Your task to perform on an android device: install app "Spotify: Music and Podcasts" Image 0: 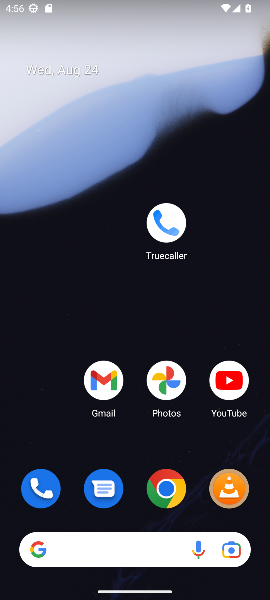
Step 0: drag from (123, 327) to (104, 122)
Your task to perform on an android device: install app "Spotify: Music and Podcasts" Image 1: 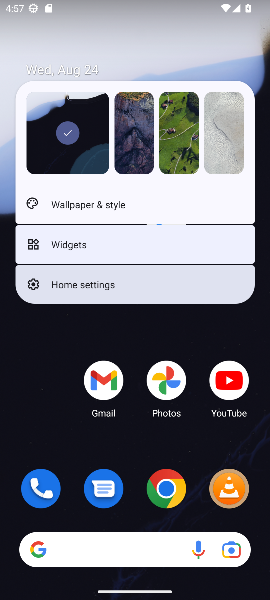
Step 1: click (54, 430)
Your task to perform on an android device: install app "Spotify: Music and Podcasts" Image 2: 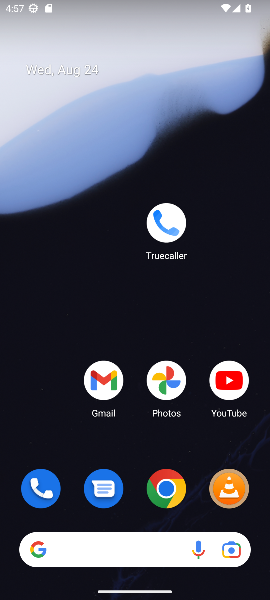
Step 2: drag from (136, 521) to (137, 87)
Your task to perform on an android device: install app "Spotify: Music and Podcasts" Image 3: 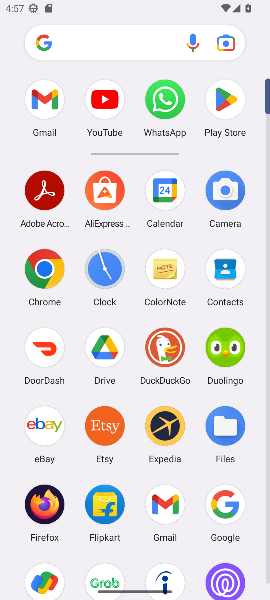
Step 3: click (231, 100)
Your task to perform on an android device: install app "Spotify: Music and Podcasts" Image 4: 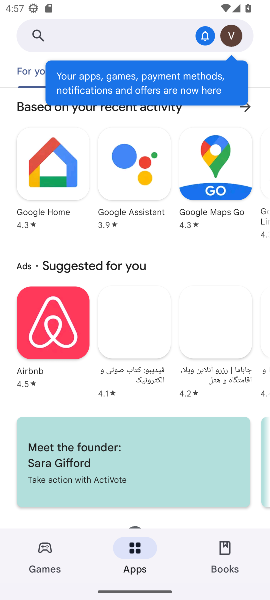
Step 4: click (171, 40)
Your task to perform on an android device: install app "Spotify: Music and Podcasts" Image 5: 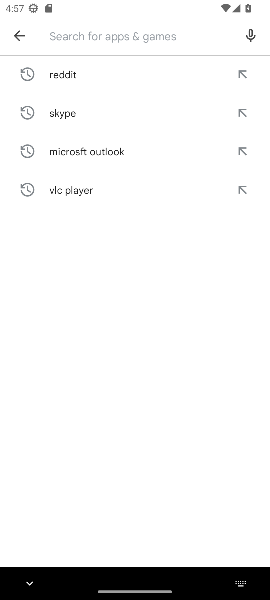
Step 5: click (129, 40)
Your task to perform on an android device: install app "Spotify: Music and Podcasts" Image 6: 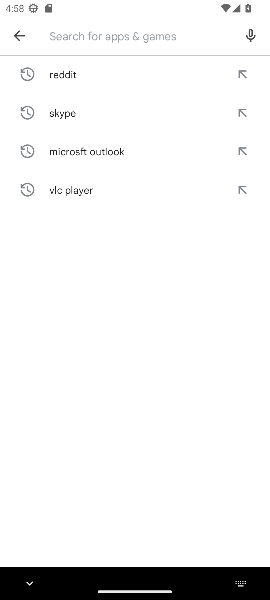
Step 6: type "spotify"
Your task to perform on an android device: install app "Spotify: Music and Podcasts" Image 7: 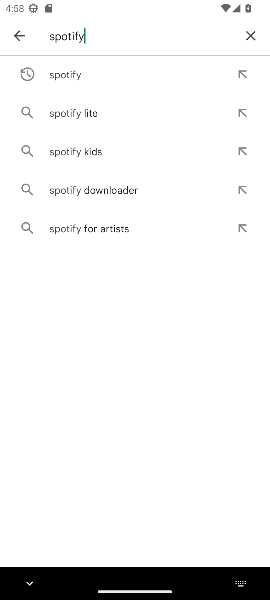
Step 7: click (64, 75)
Your task to perform on an android device: install app "Spotify: Music and Podcasts" Image 8: 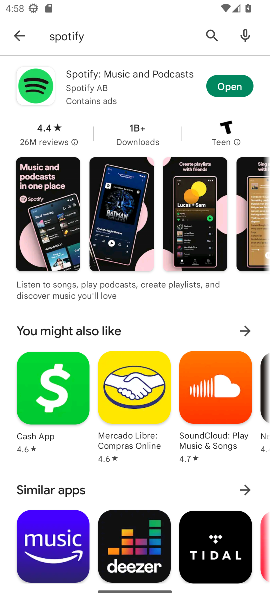
Step 8: click (229, 92)
Your task to perform on an android device: install app "Spotify: Music and Podcasts" Image 9: 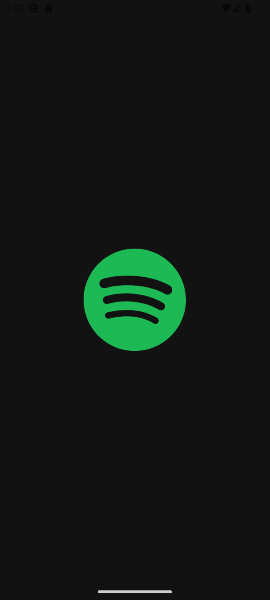
Step 9: task complete